Your task to perform on an android device: check google app version Image 0: 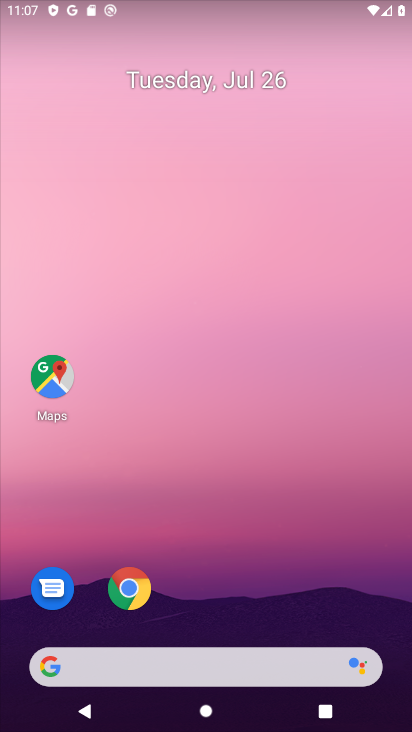
Step 0: press home button
Your task to perform on an android device: check google app version Image 1: 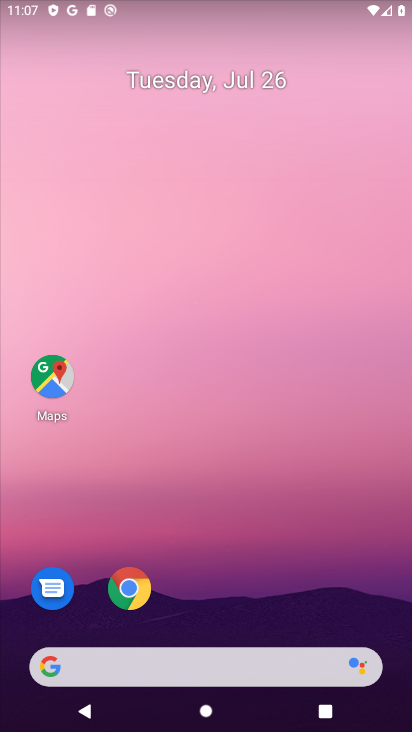
Step 1: drag from (209, 626) to (221, 36)
Your task to perform on an android device: check google app version Image 2: 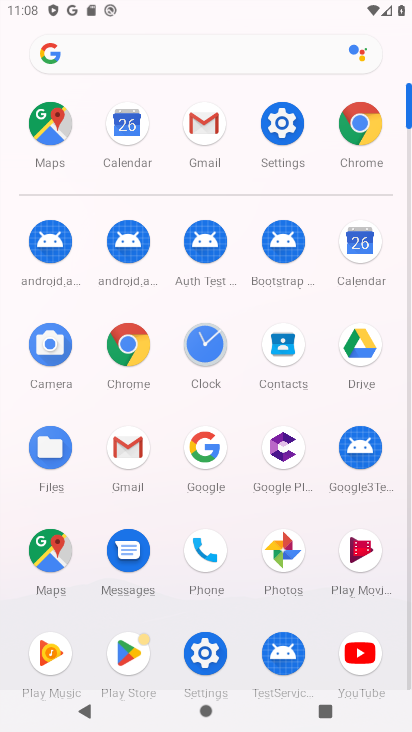
Step 2: click (203, 443)
Your task to perform on an android device: check google app version Image 3: 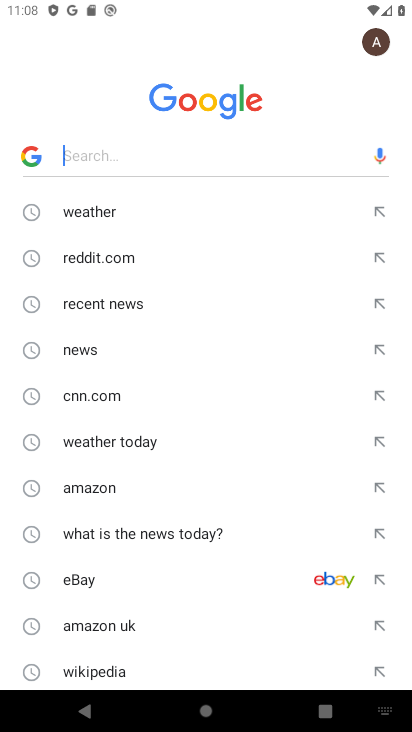
Step 3: press back button
Your task to perform on an android device: check google app version Image 4: 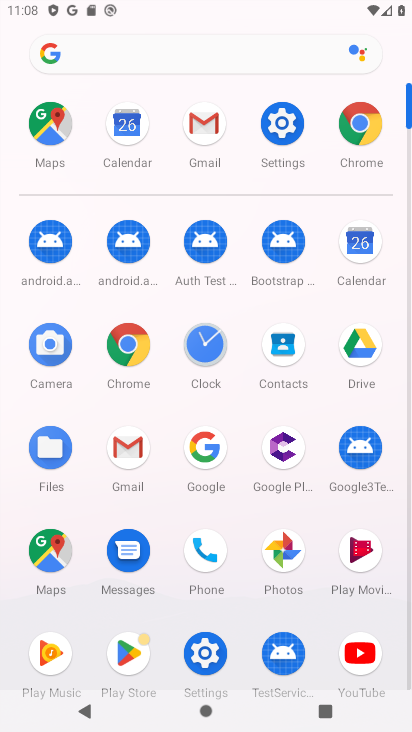
Step 4: click (210, 444)
Your task to perform on an android device: check google app version Image 5: 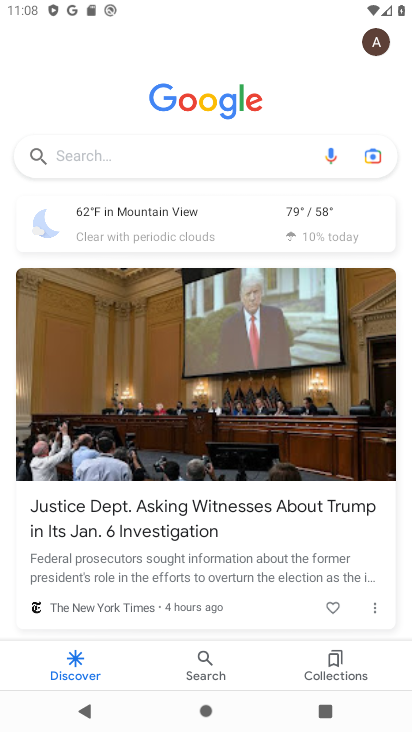
Step 5: click (374, 34)
Your task to perform on an android device: check google app version Image 6: 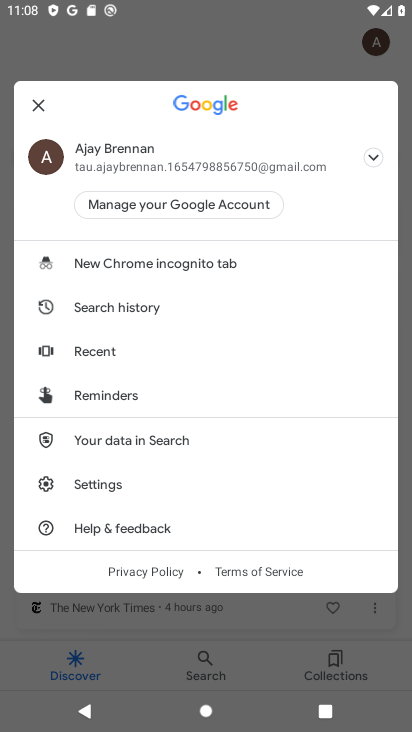
Step 6: click (130, 479)
Your task to perform on an android device: check google app version Image 7: 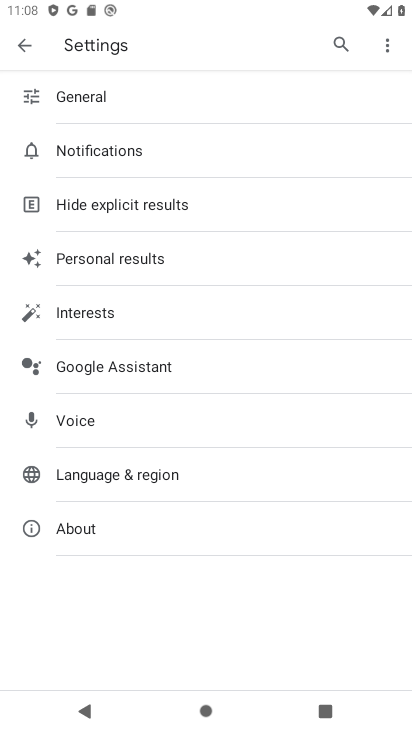
Step 7: click (113, 523)
Your task to perform on an android device: check google app version Image 8: 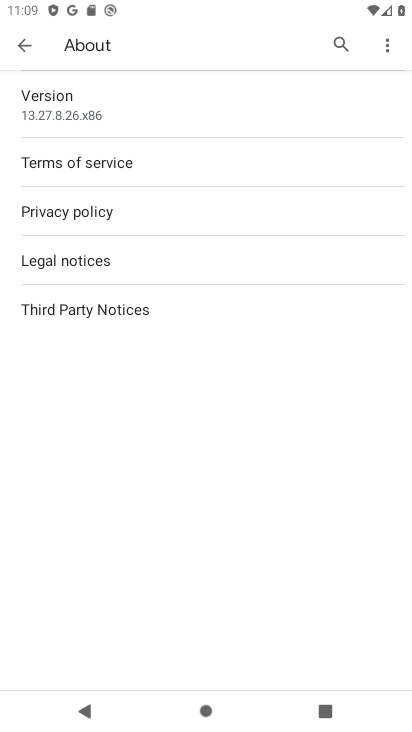
Step 8: task complete